Your task to perform on an android device: Do I have any events tomorrow? Image 0: 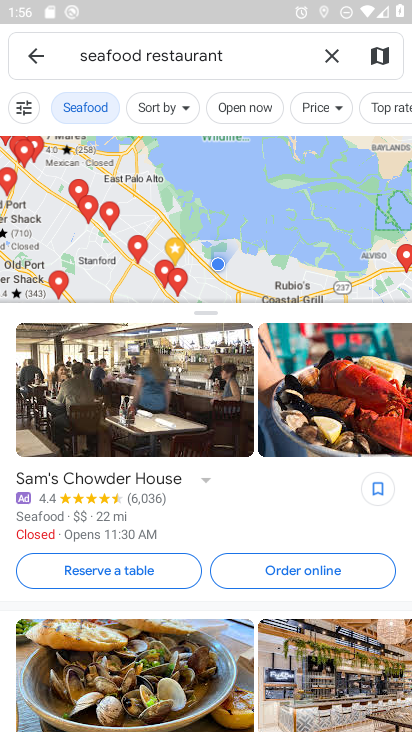
Step 0: press home button
Your task to perform on an android device: Do I have any events tomorrow? Image 1: 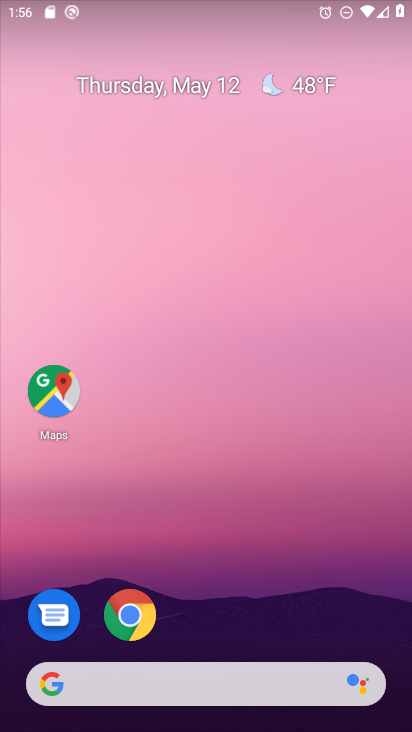
Step 1: drag from (282, 547) to (357, 10)
Your task to perform on an android device: Do I have any events tomorrow? Image 2: 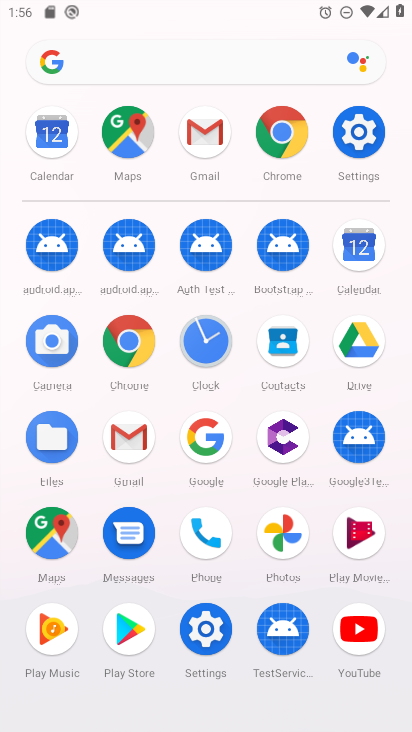
Step 2: click (365, 244)
Your task to perform on an android device: Do I have any events tomorrow? Image 3: 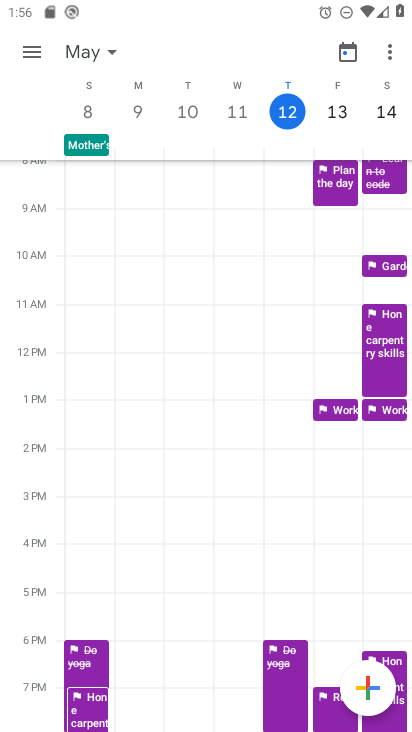
Step 3: click (37, 43)
Your task to perform on an android device: Do I have any events tomorrow? Image 4: 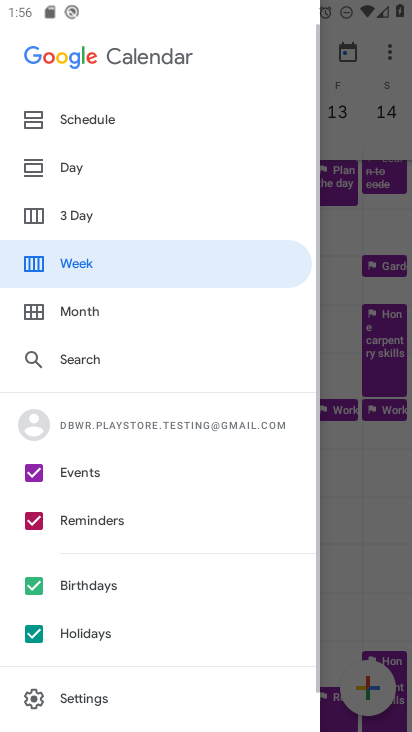
Step 4: click (386, 142)
Your task to perform on an android device: Do I have any events tomorrow? Image 5: 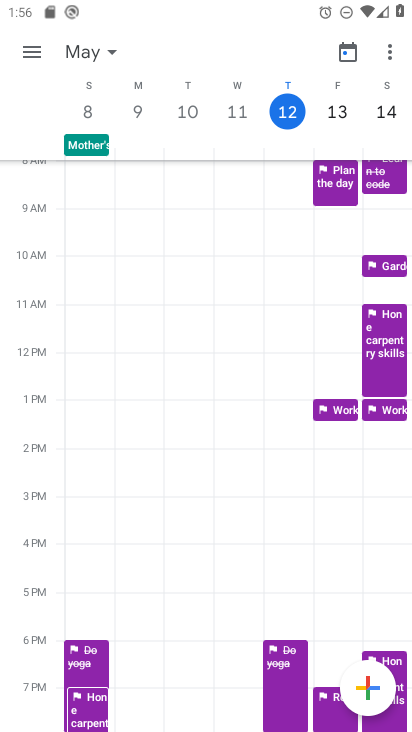
Step 5: click (105, 51)
Your task to perform on an android device: Do I have any events tomorrow? Image 6: 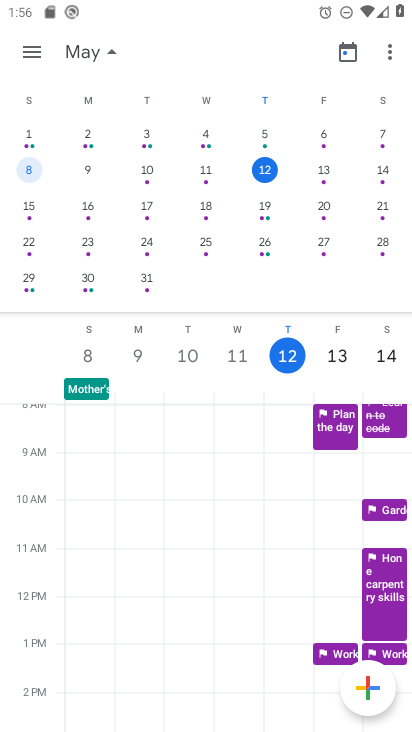
Step 6: click (325, 171)
Your task to perform on an android device: Do I have any events tomorrow? Image 7: 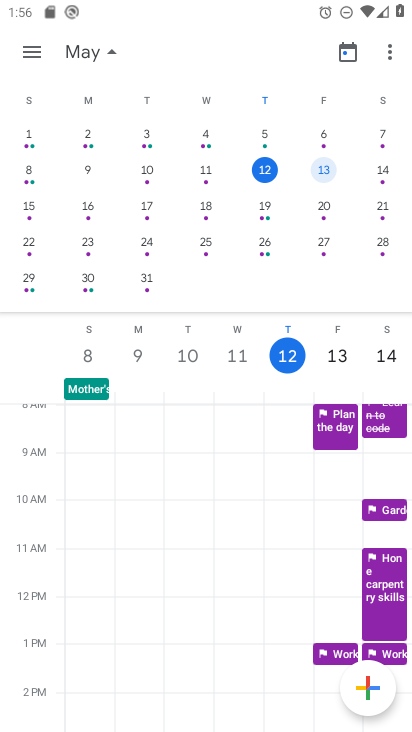
Step 7: click (325, 171)
Your task to perform on an android device: Do I have any events tomorrow? Image 8: 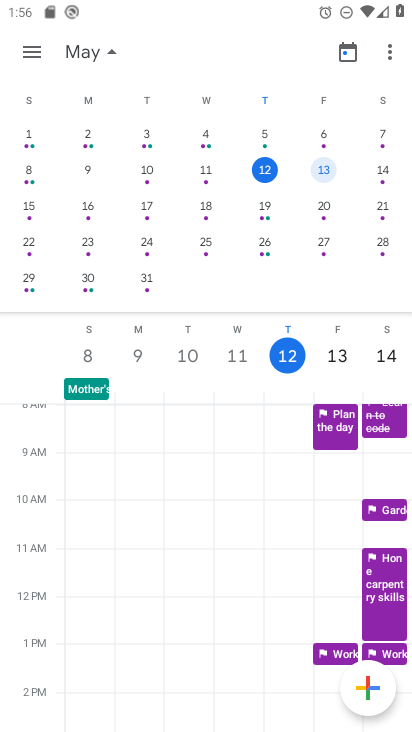
Step 8: task complete